Your task to perform on an android device: turn on wifi Image 0: 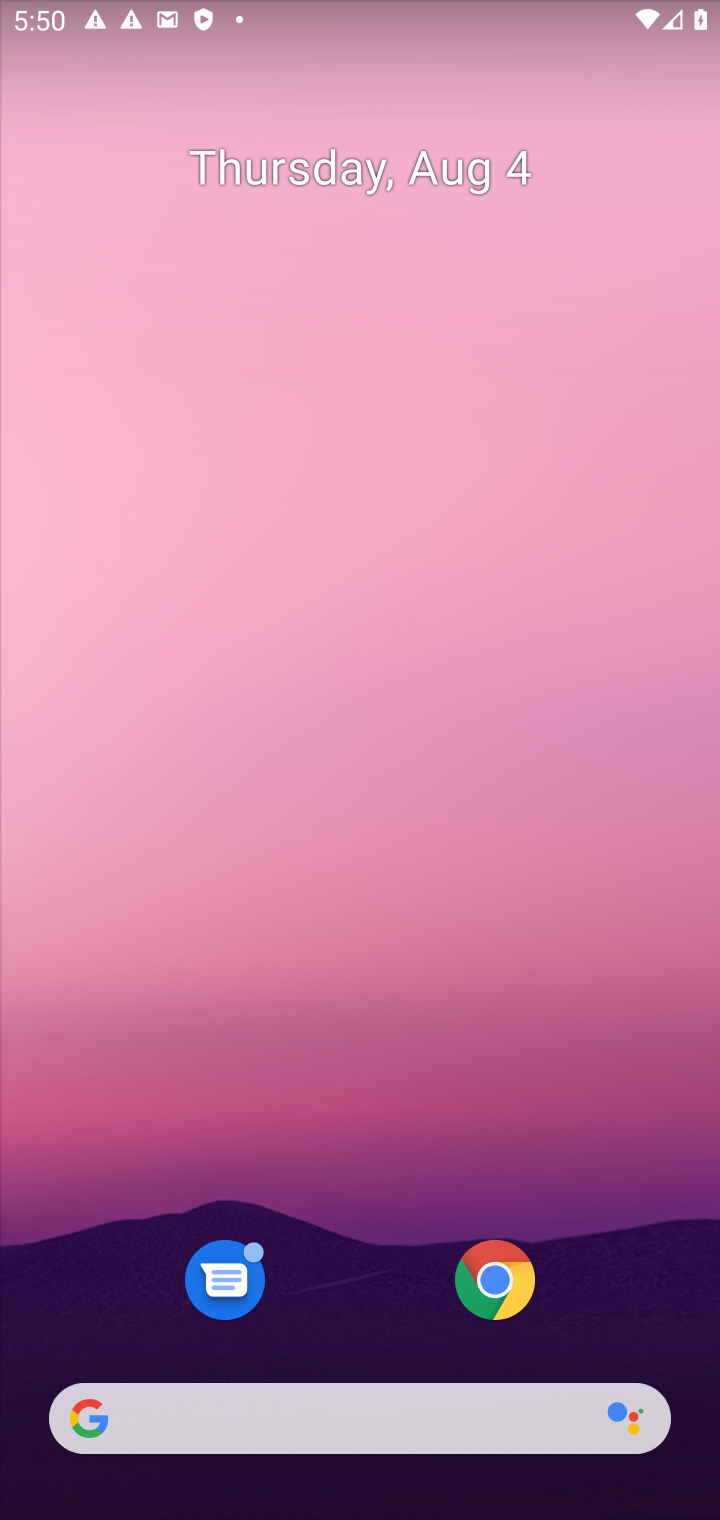
Step 0: drag from (355, 1246) to (440, 110)
Your task to perform on an android device: turn on wifi Image 1: 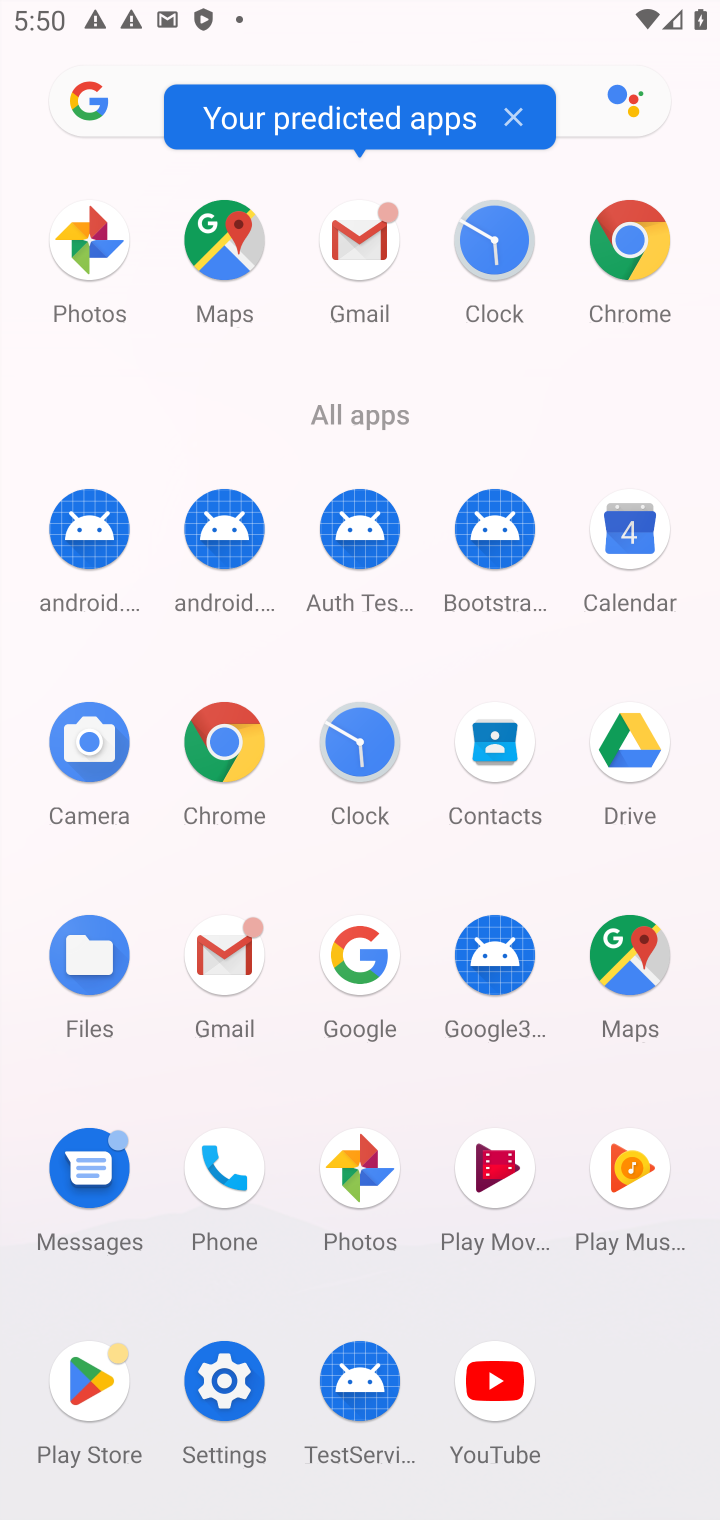
Step 1: click (214, 1368)
Your task to perform on an android device: turn on wifi Image 2: 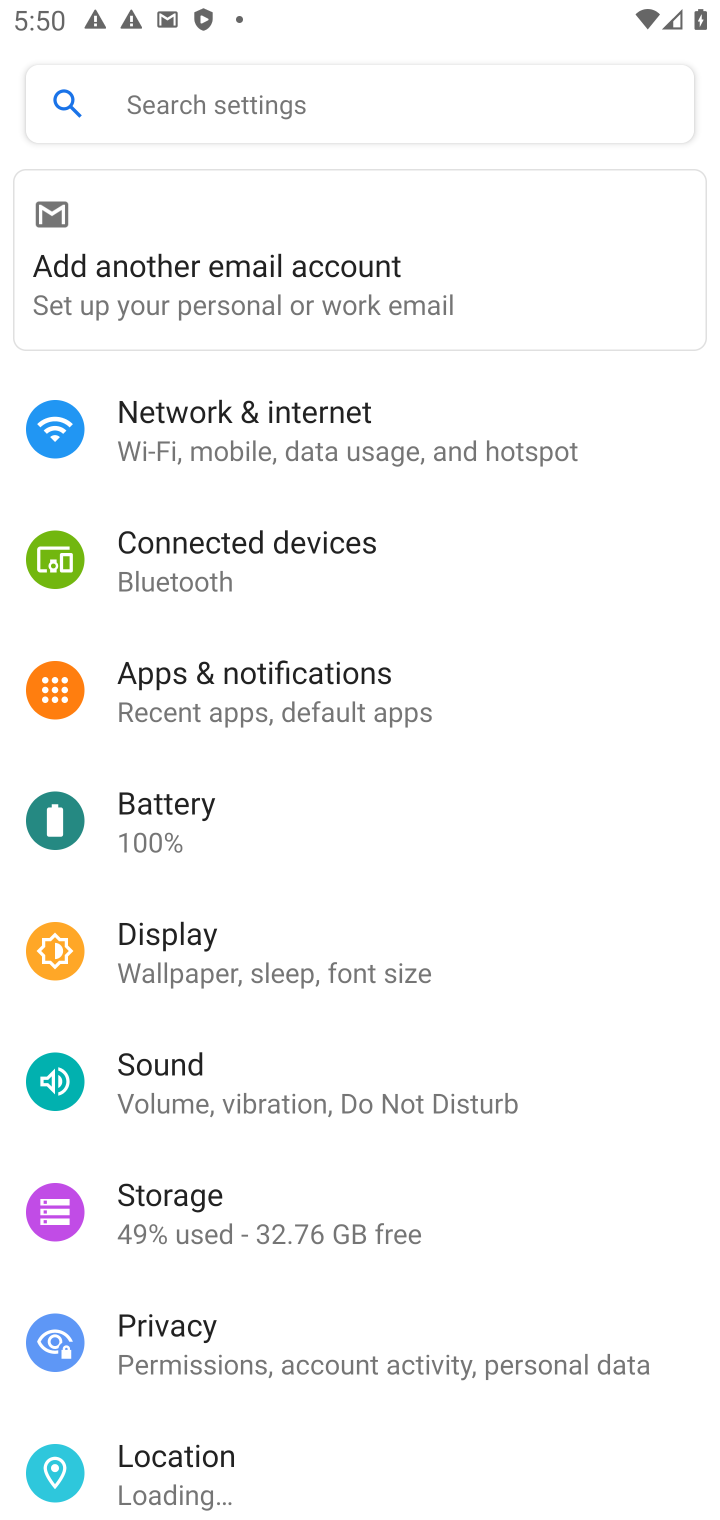
Step 2: click (310, 255)
Your task to perform on an android device: turn on wifi Image 3: 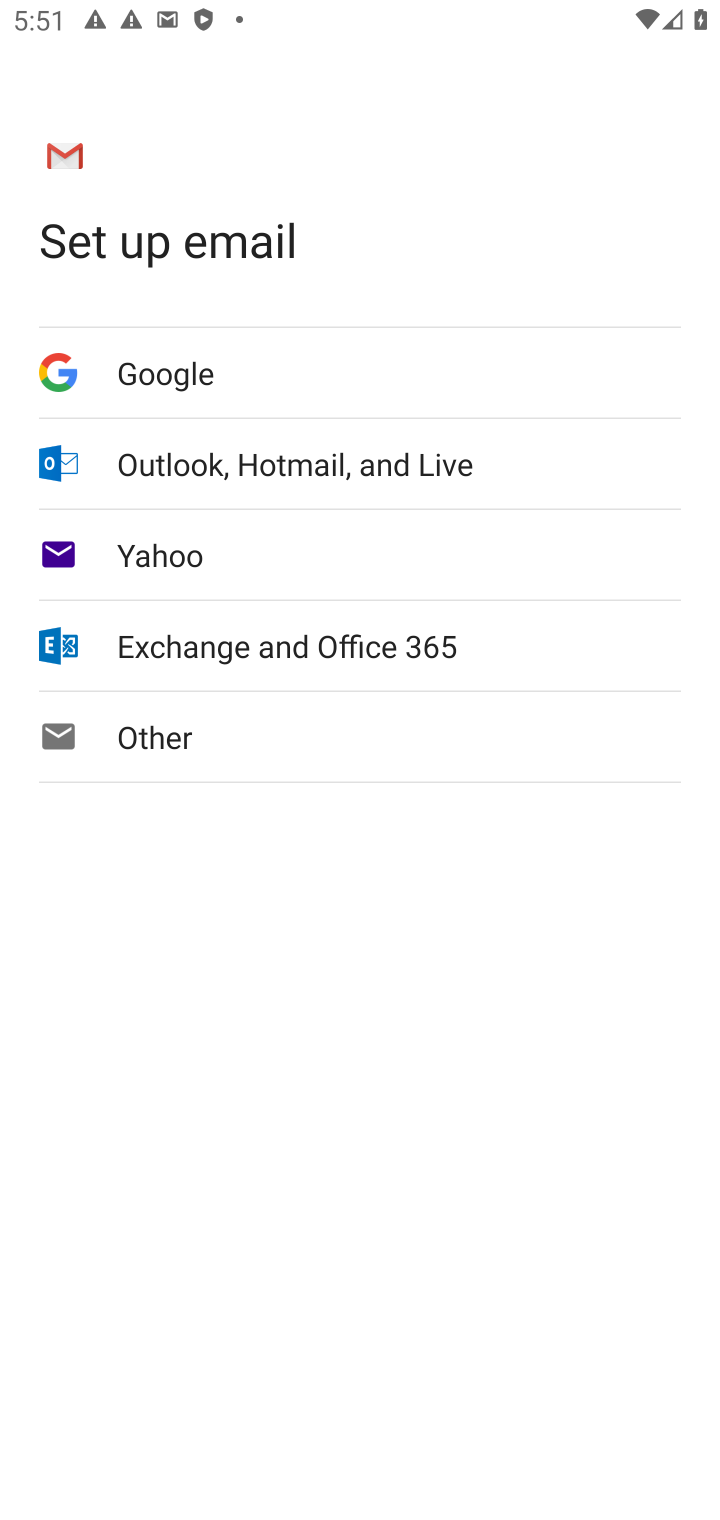
Step 3: press back button
Your task to perform on an android device: turn on wifi Image 4: 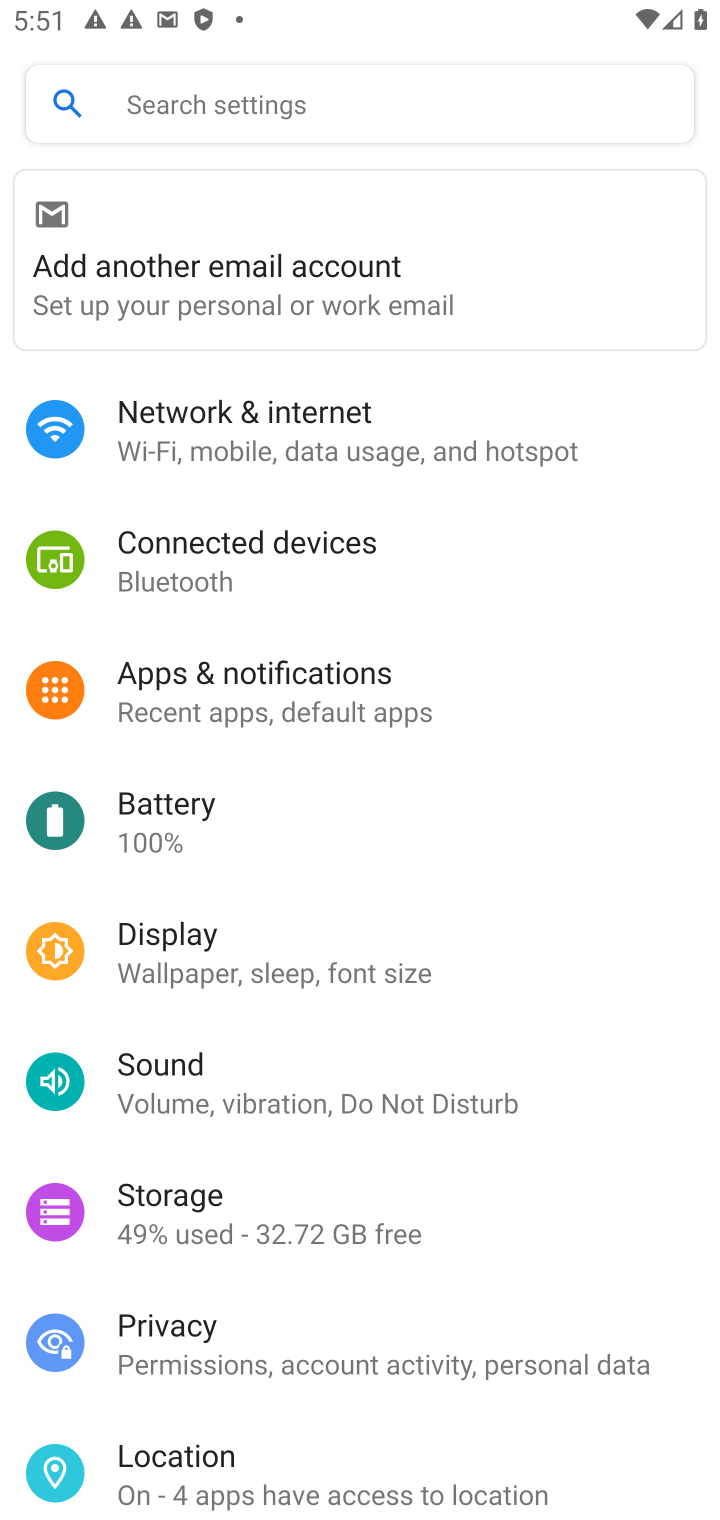
Step 4: click (257, 419)
Your task to perform on an android device: turn on wifi Image 5: 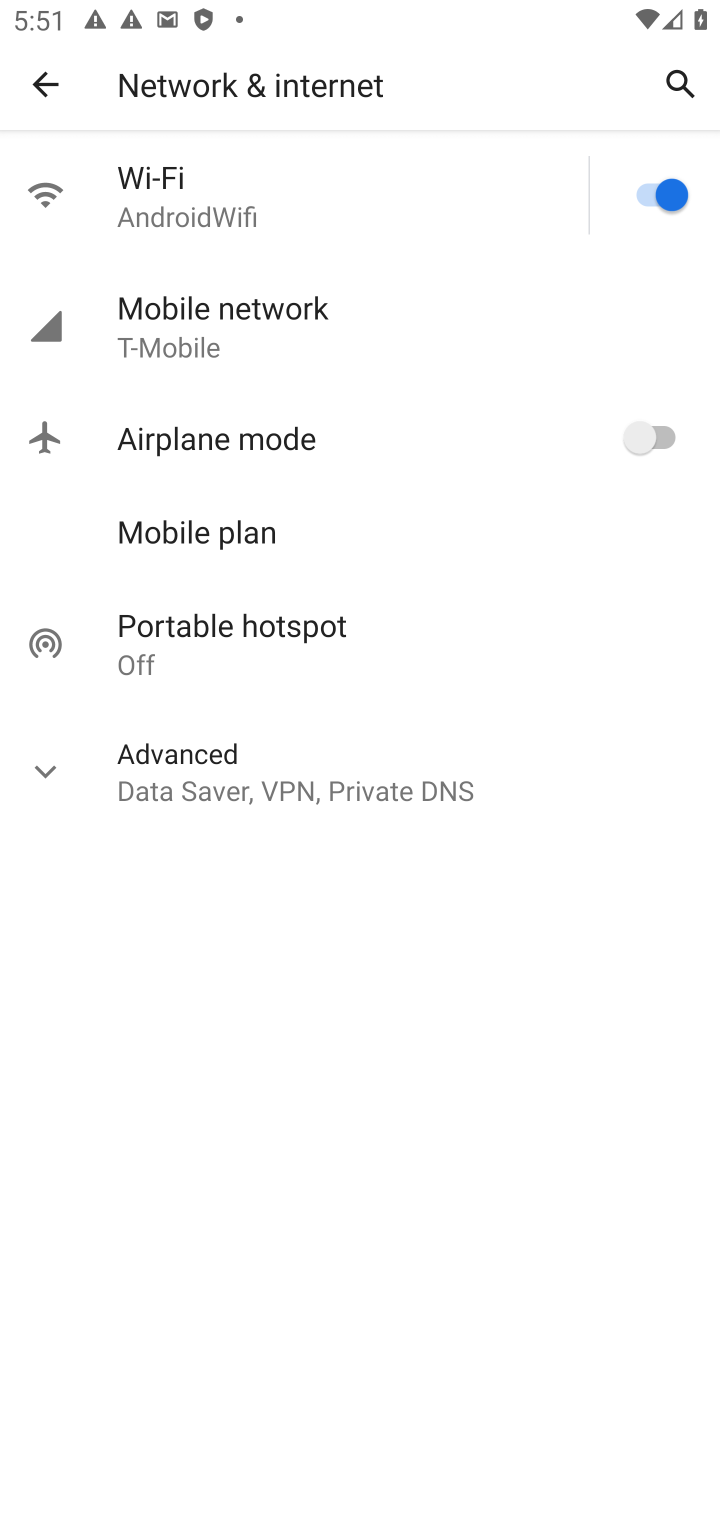
Step 5: task complete